Your task to perform on an android device: Search for the best rated electric lawnmower on Home Depot Image 0: 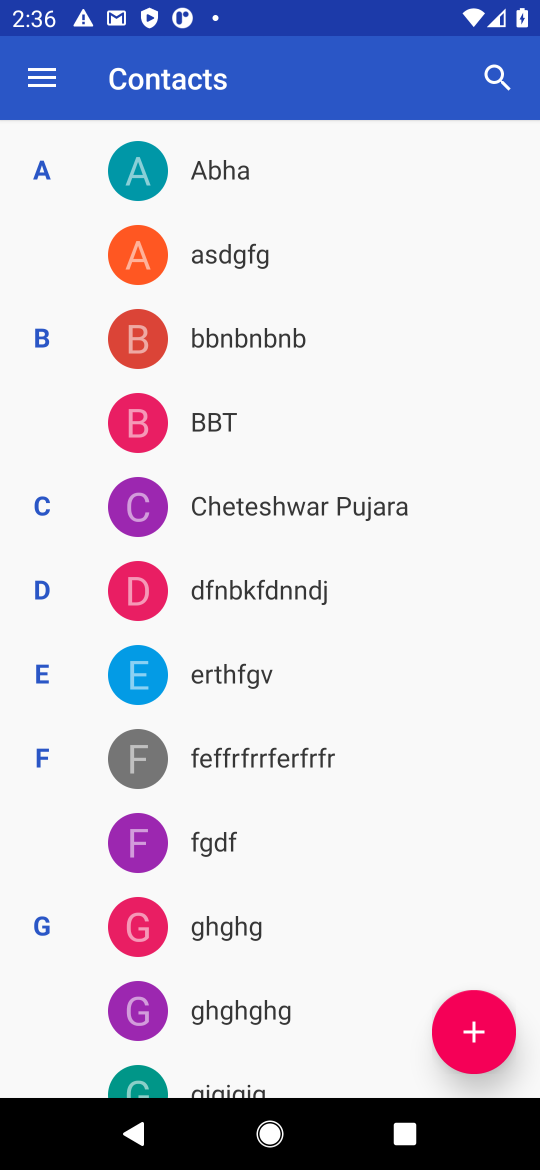
Step 0: press home button
Your task to perform on an android device: Search for the best rated electric lawnmower on Home Depot Image 1: 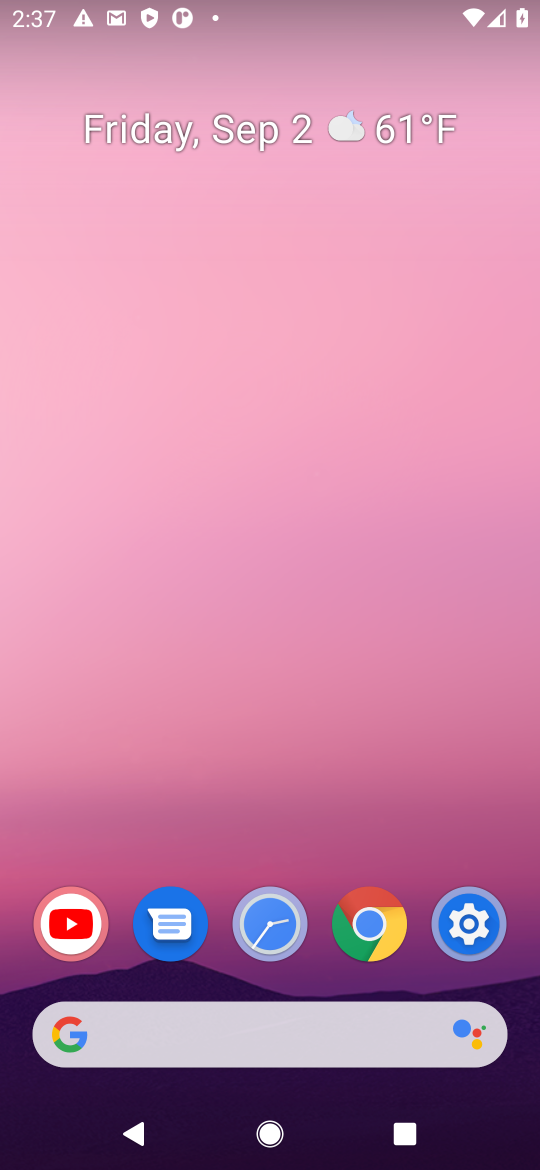
Step 1: click (378, 1025)
Your task to perform on an android device: Search for the best rated electric lawnmower on Home Depot Image 2: 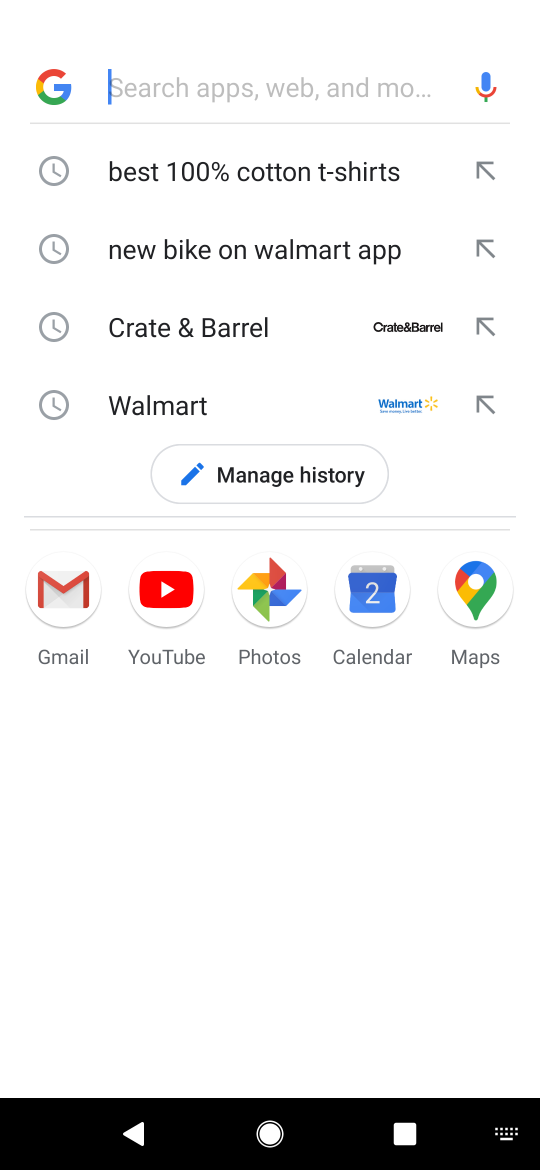
Step 2: press enter
Your task to perform on an android device: Search for the best rated electric lawnmower on Home Depot Image 3: 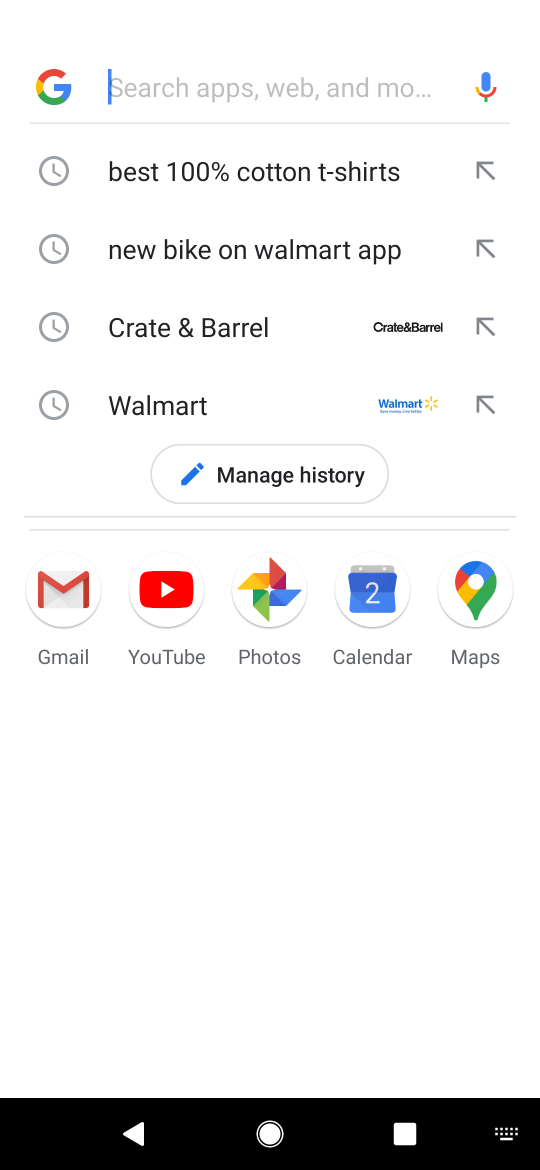
Step 3: type "home depot"
Your task to perform on an android device: Search for the best rated electric lawnmower on Home Depot Image 4: 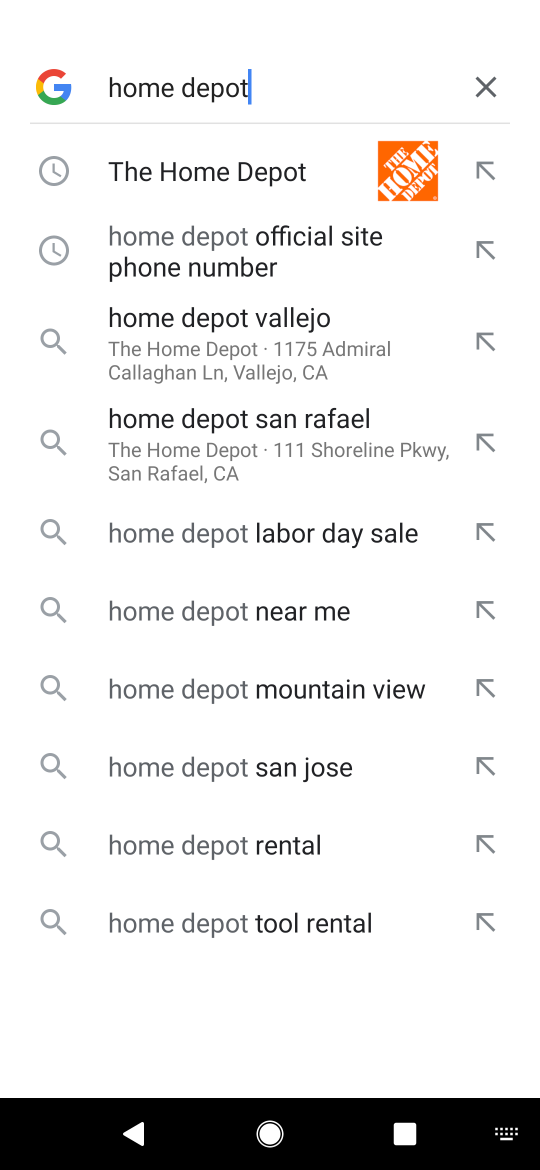
Step 4: click (242, 170)
Your task to perform on an android device: Search for the best rated electric lawnmower on Home Depot Image 5: 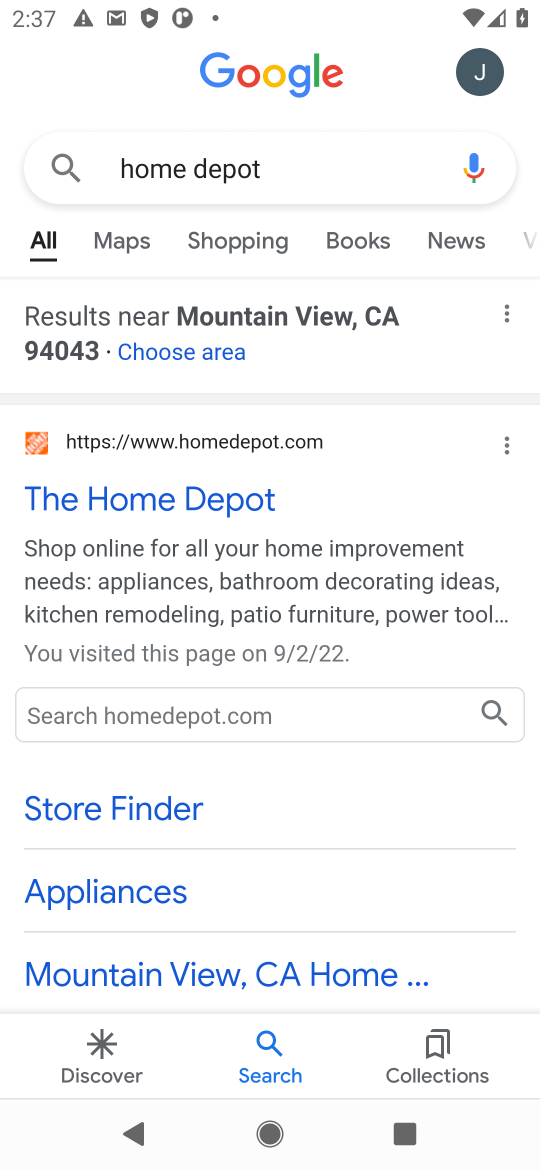
Step 5: click (235, 495)
Your task to perform on an android device: Search for the best rated electric lawnmower on Home Depot Image 6: 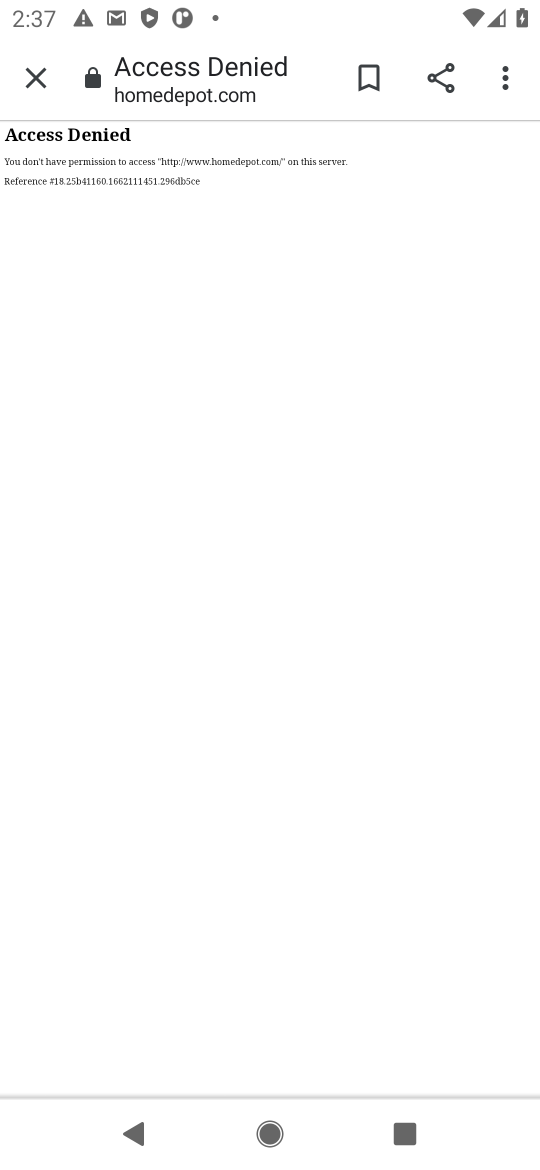
Step 6: task complete